Your task to perform on an android device: set an alarm Image 0: 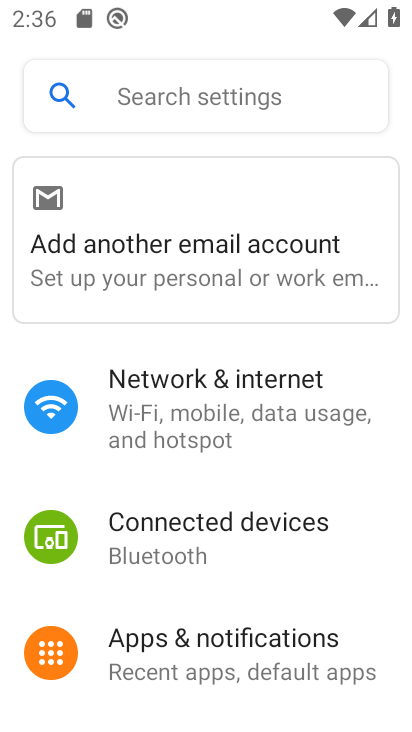
Step 0: press home button
Your task to perform on an android device: set an alarm Image 1: 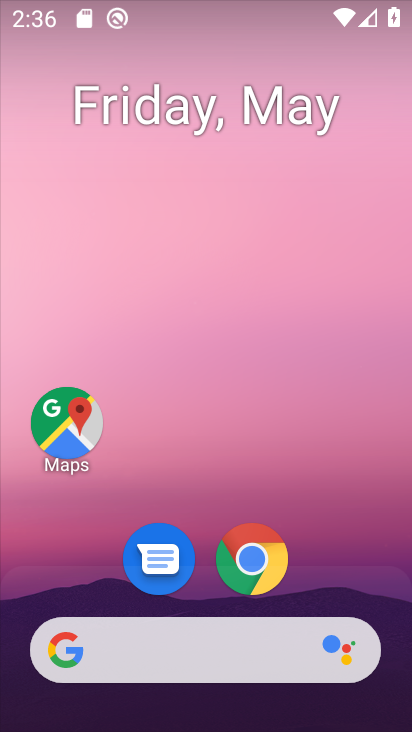
Step 1: drag from (352, 573) to (258, 46)
Your task to perform on an android device: set an alarm Image 2: 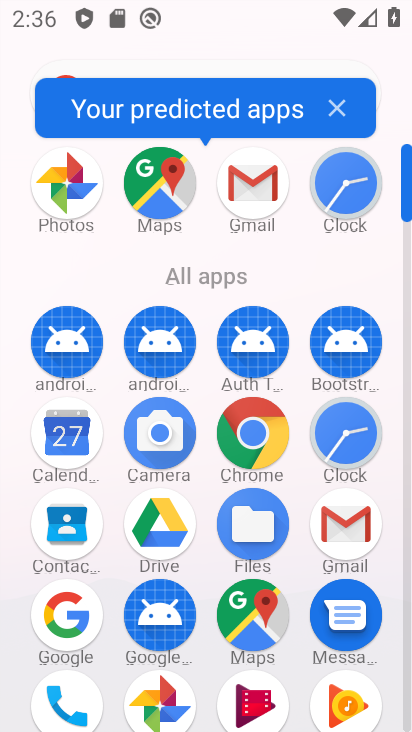
Step 2: click (332, 200)
Your task to perform on an android device: set an alarm Image 3: 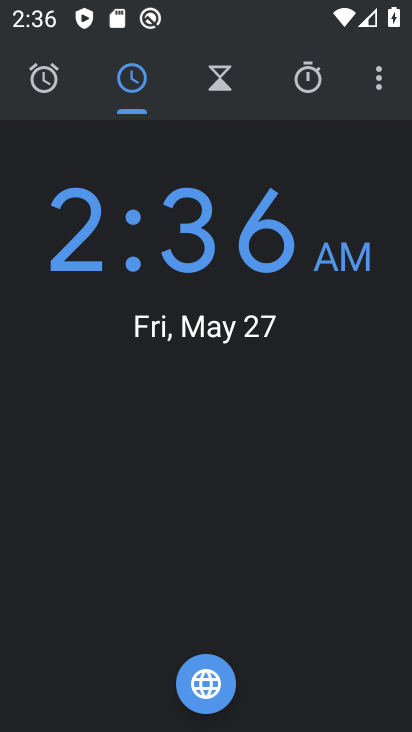
Step 3: click (29, 75)
Your task to perform on an android device: set an alarm Image 4: 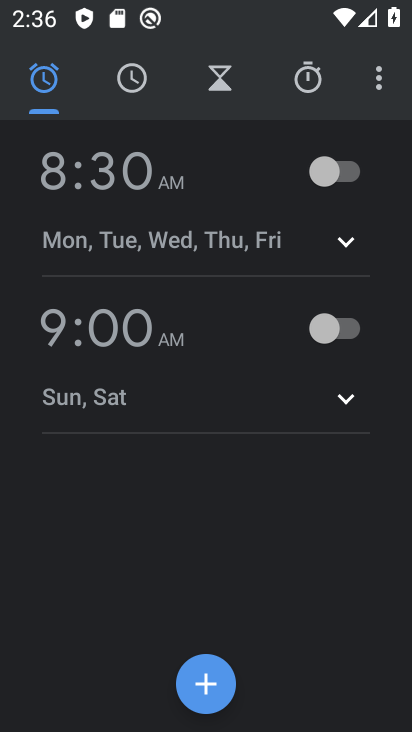
Step 4: click (320, 162)
Your task to perform on an android device: set an alarm Image 5: 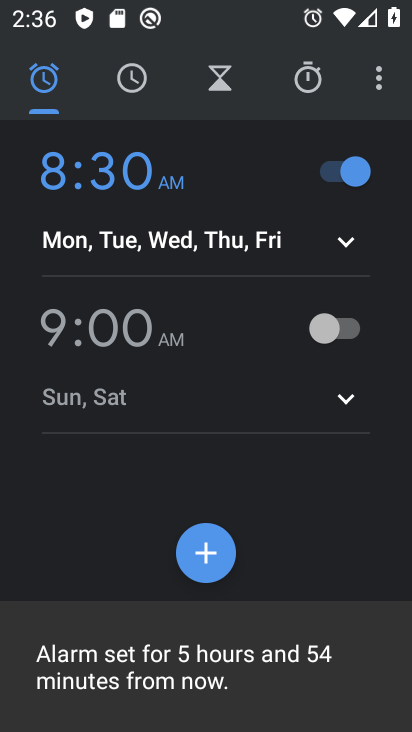
Step 5: task complete